Your task to perform on an android device: Go to eBay Image 0: 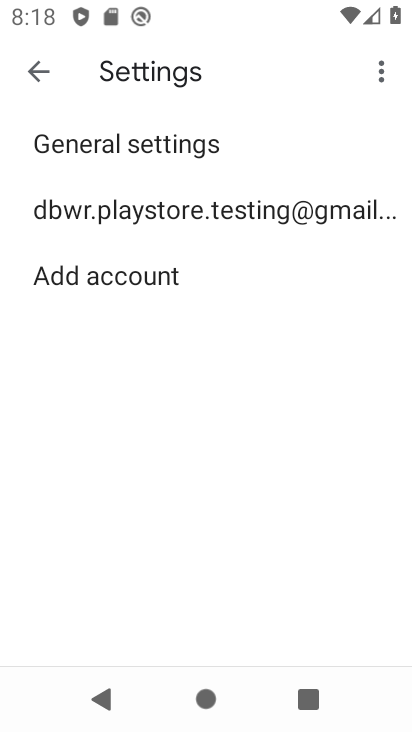
Step 0: press home button
Your task to perform on an android device: Go to eBay Image 1: 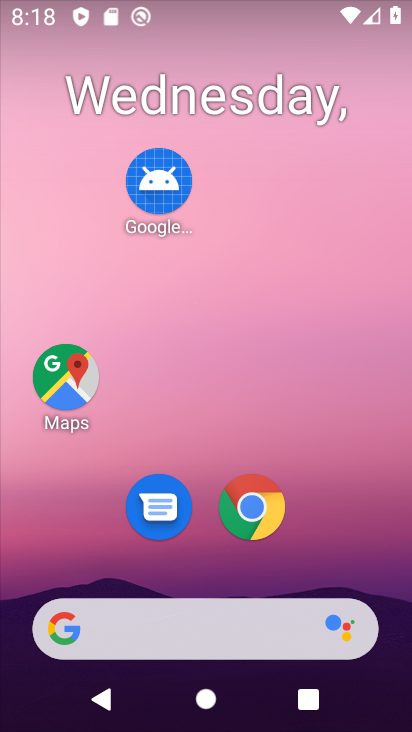
Step 1: drag from (202, 589) to (386, 165)
Your task to perform on an android device: Go to eBay Image 2: 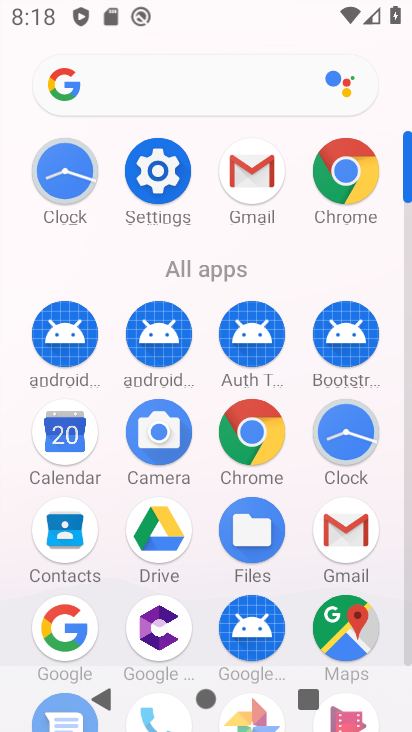
Step 2: click (336, 185)
Your task to perform on an android device: Go to eBay Image 3: 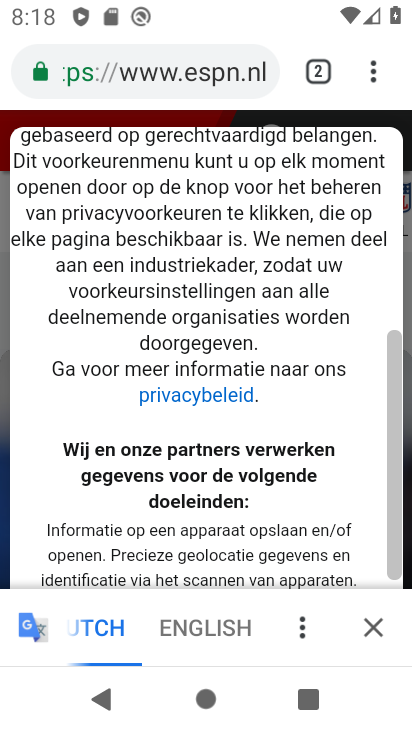
Step 3: click (323, 65)
Your task to perform on an android device: Go to eBay Image 4: 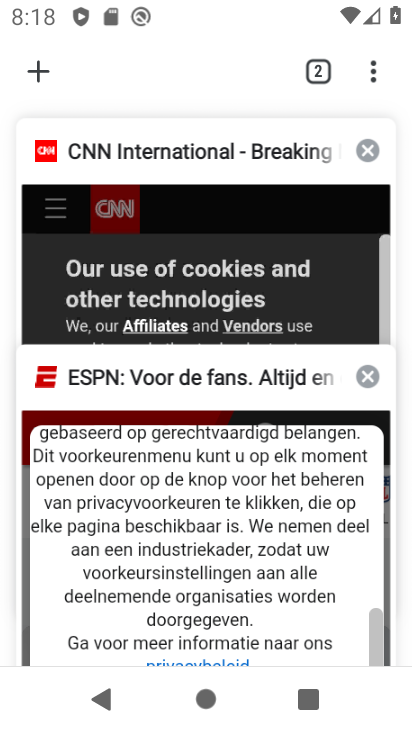
Step 4: click (36, 74)
Your task to perform on an android device: Go to eBay Image 5: 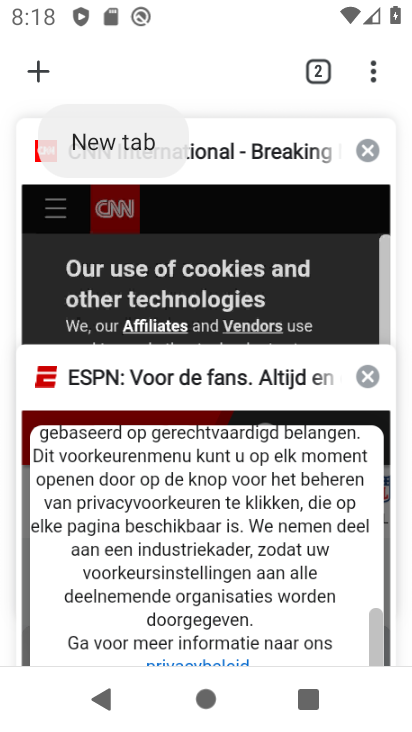
Step 5: click (41, 78)
Your task to perform on an android device: Go to eBay Image 6: 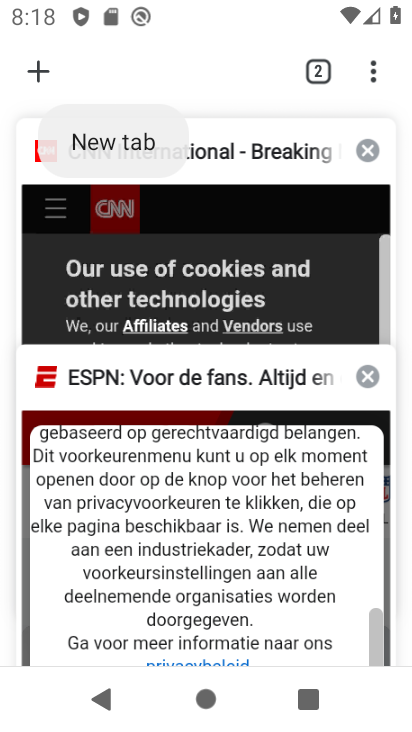
Step 6: click (38, 61)
Your task to perform on an android device: Go to eBay Image 7: 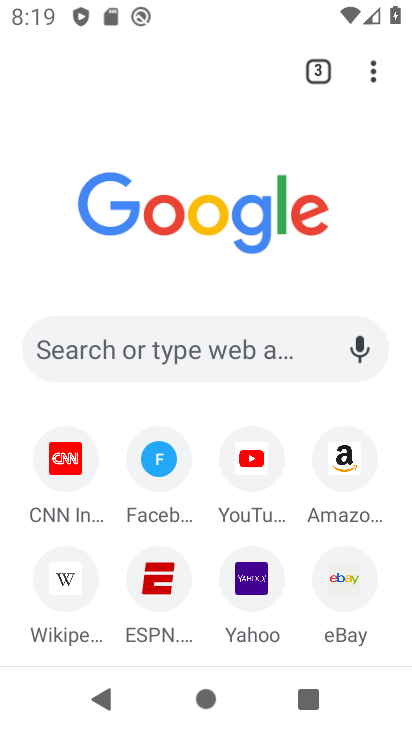
Step 7: click (344, 586)
Your task to perform on an android device: Go to eBay Image 8: 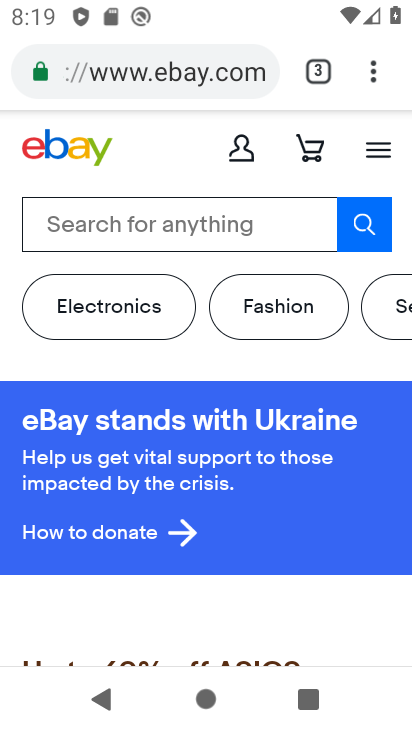
Step 8: task complete